Your task to perform on an android device: Go to internet settings Image 0: 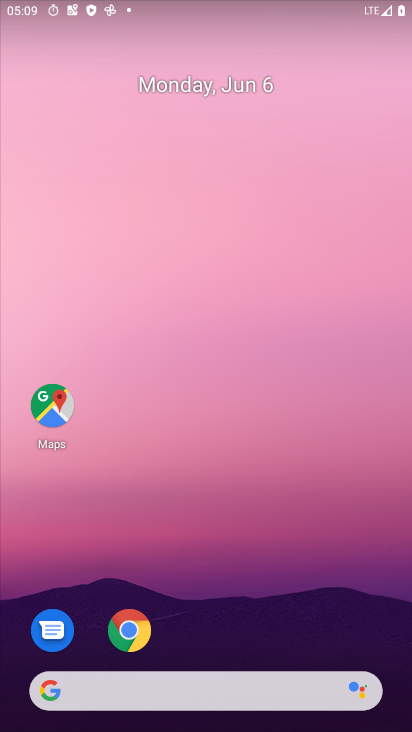
Step 0: drag from (293, 644) to (308, 39)
Your task to perform on an android device: Go to internet settings Image 1: 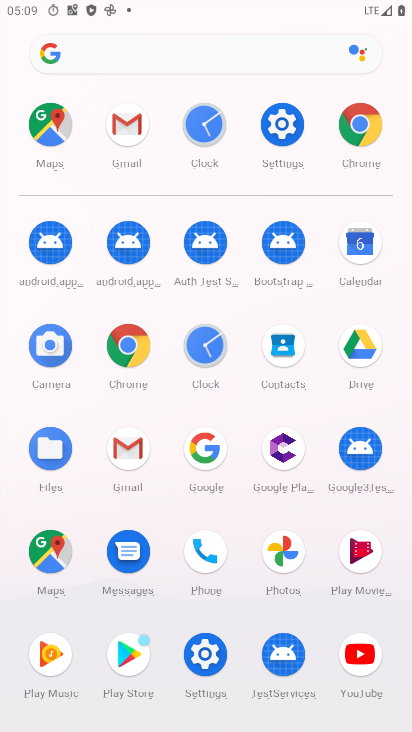
Step 1: click (271, 122)
Your task to perform on an android device: Go to internet settings Image 2: 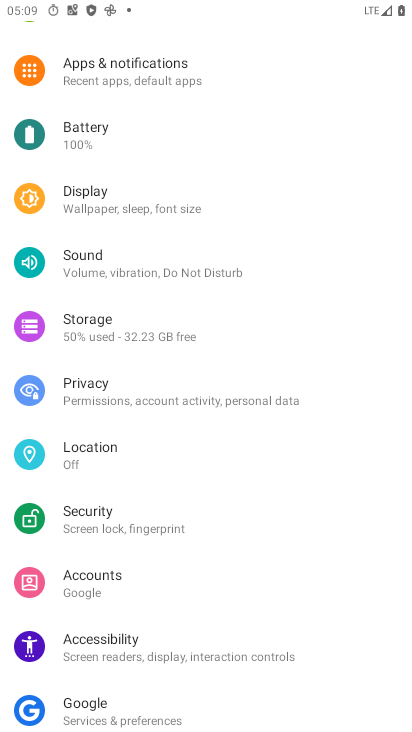
Step 2: drag from (213, 195) to (169, 513)
Your task to perform on an android device: Go to internet settings Image 3: 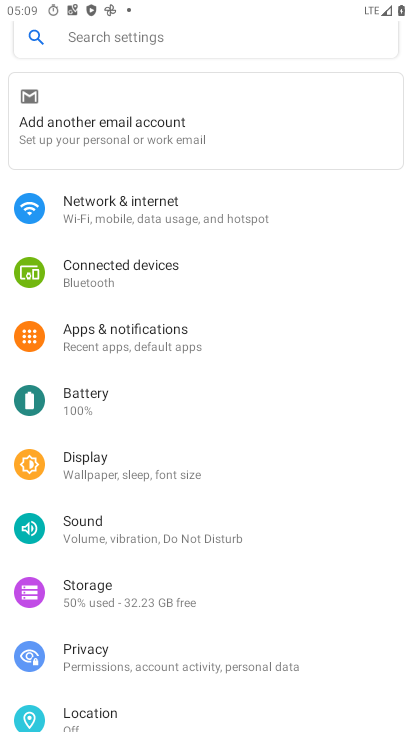
Step 3: click (134, 215)
Your task to perform on an android device: Go to internet settings Image 4: 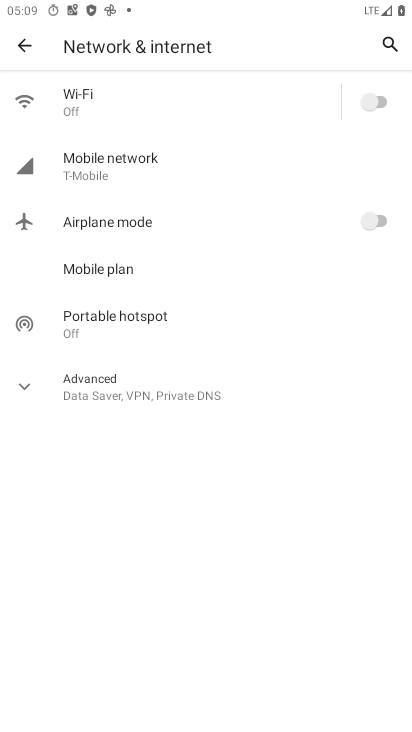
Step 4: task complete